Your task to perform on an android device: turn on notifications settings in the gmail app Image 0: 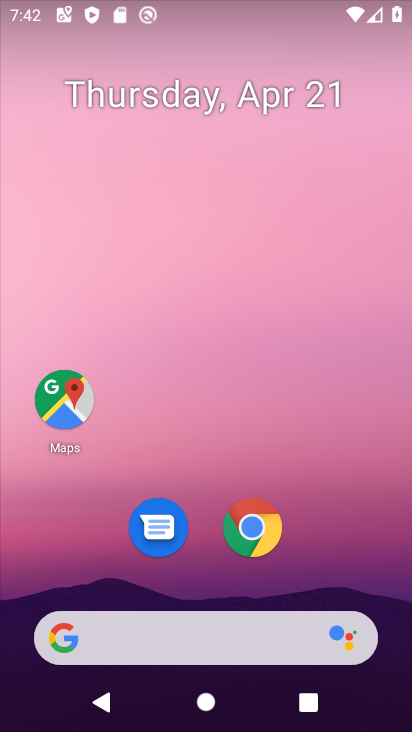
Step 0: click (219, 61)
Your task to perform on an android device: turn on notifications settings in the gmail app Image 1: 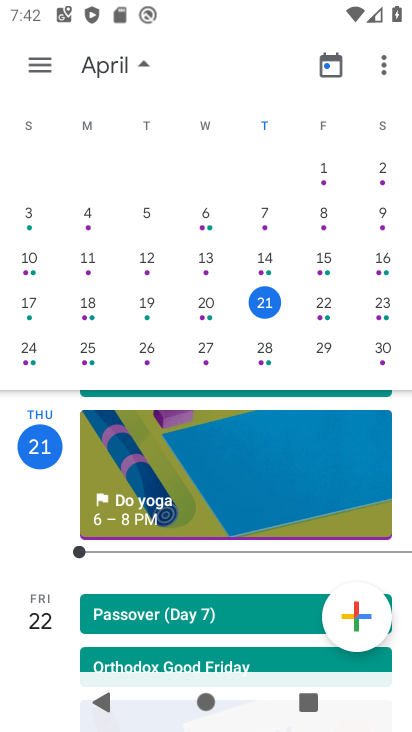
Step 1: press home button
Your task to perform on an android device: turn on notifications settings in the gmail app Image 2: 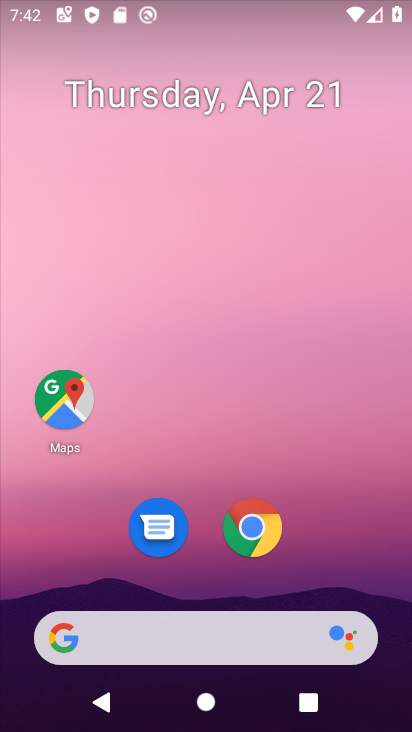
Step 2: drag from (188, 636) to (188, 58)
Your task to perform on an android device: turn on notifications settings in the gmail app Image 3: 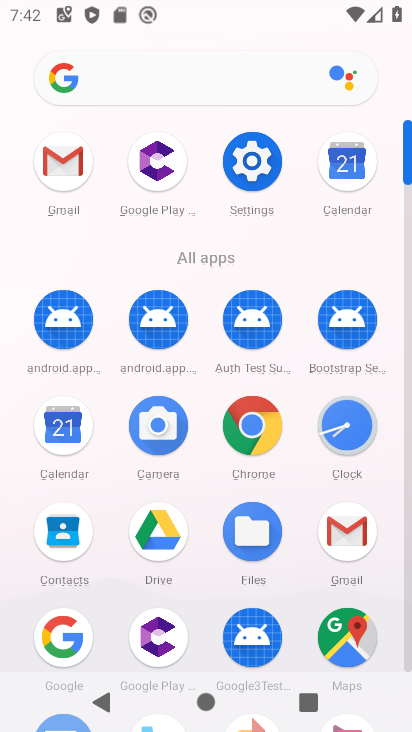
Step 3: click (344, 529)
Your task to perform on an android device: turn on notifications settings in the gmail app Image 4: 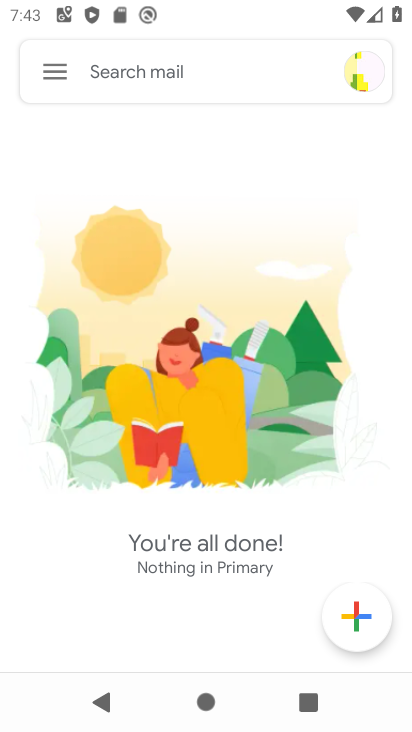
Step 4: click (61, 75)
Your task to perform on an android device: turn on notifications settings in the gmail app Image 5: 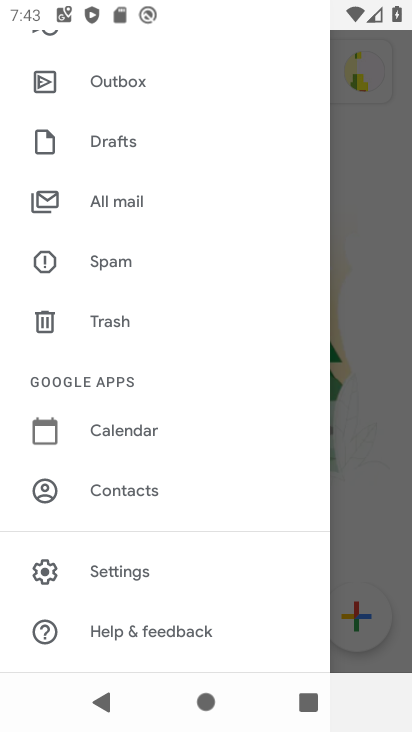
Step 5: click (132, 572)
Your task to perform on an android device: turn on notifications settings in the gmail app Image 6: 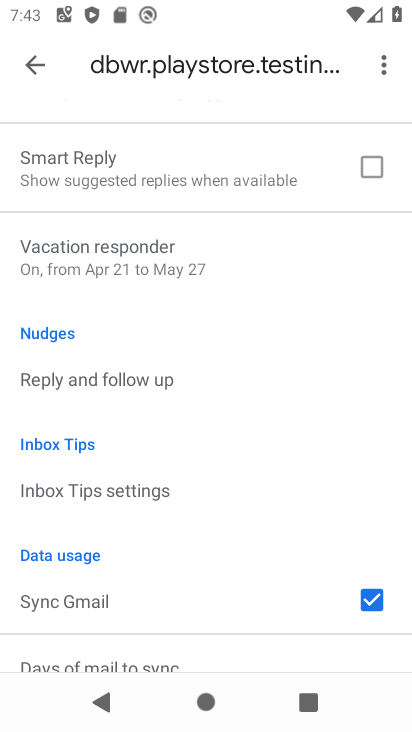
Step 6: click (33, 72)
Your task to perform on an android device: turn on notifications settings in the gmail app Image 7: 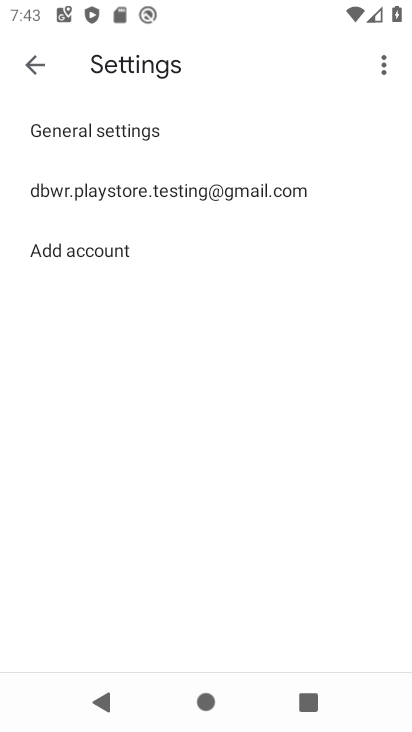
Step 7: click (182, 134)
Your task to perform on an android device: turn on notifications settings in the gmail app Image 8: 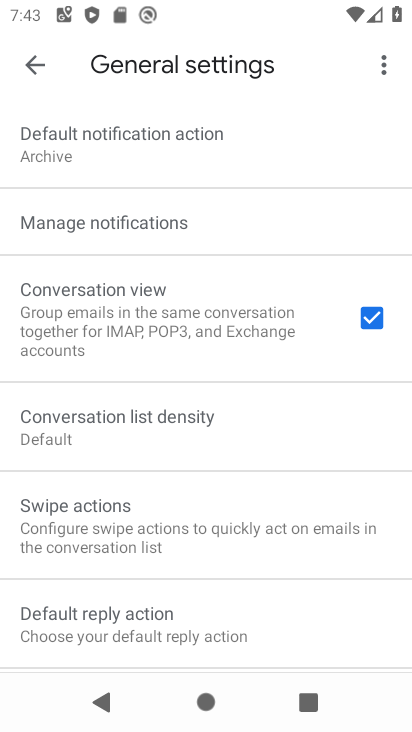
Step 8: click (148, 222)
Your task to perform on an android device: turn on notifications settings in the gmail app Image 9: 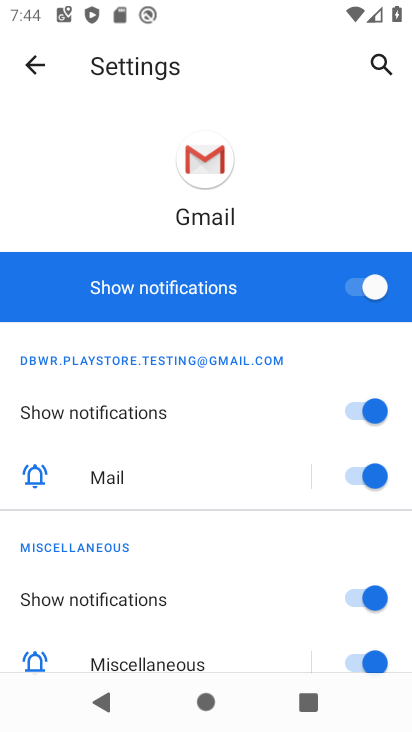
Step 9: task complete